Your task to perform on an android device: open sync settings in chrome Image 0: 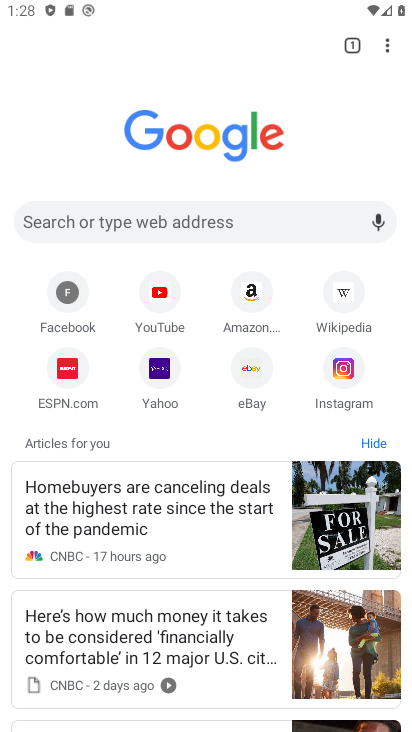
Step 0: press home button
Your task to perform on an android device: open sync settings in chrome Image 1: 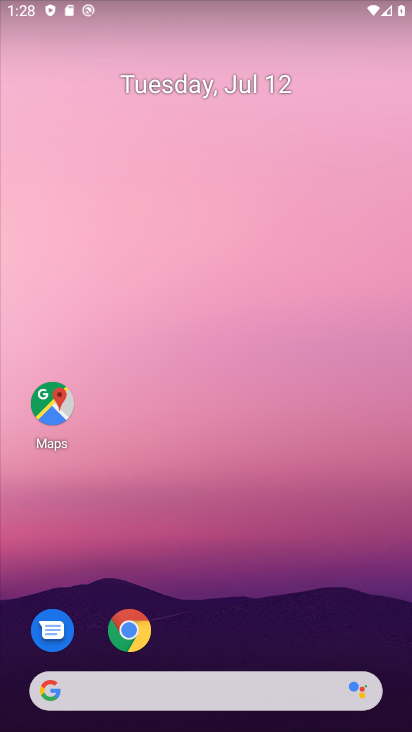
Step 1: drag from (389, 701) to (334, 80)
Your task to perform on an android device: open sync settings in chrome Image 2: 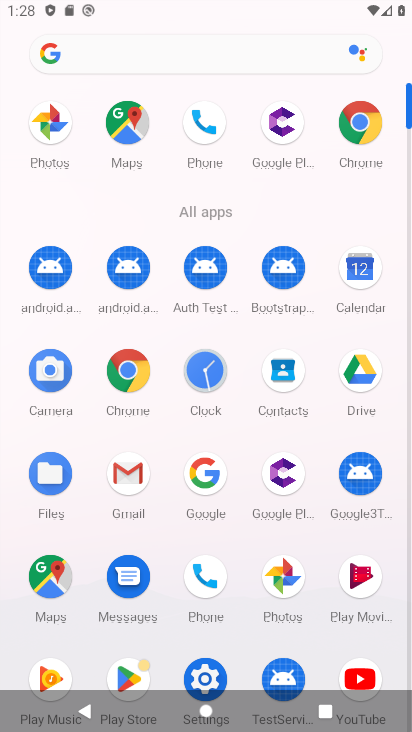
Step 2: click (358, 118)
Your task to perform on an android device: open sync settings in chrome Image 3: 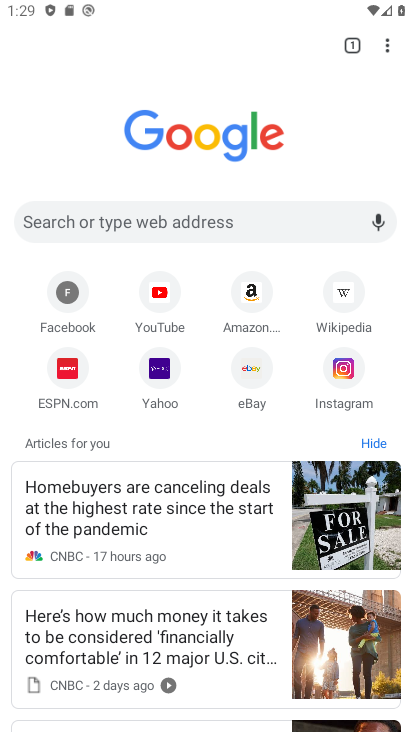
Step 3: click (386, 48)
Your task to perform on an android device: open sync settings in chrome Image 4: 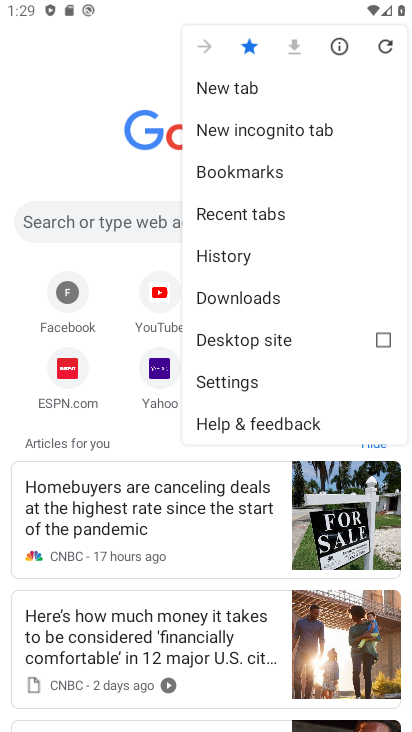
Step 4: click (244, 374)
Your task to perform on an android device: open sync settings in chrome Image 5: 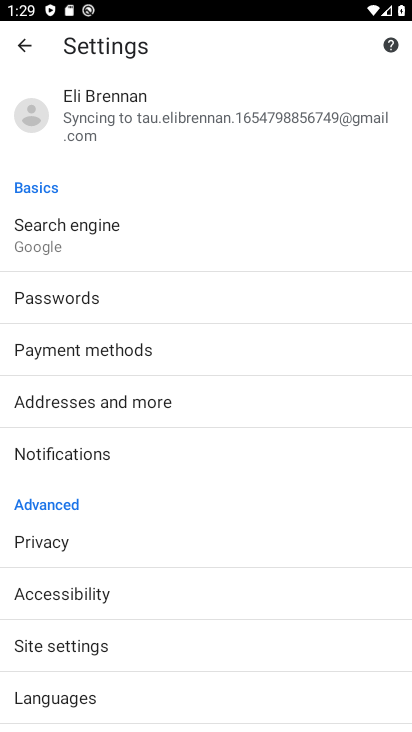
Step 5: drag from (178, 622) to (156, 227)
Your task to perform on an android device: open sync settings in chrome Image 6: 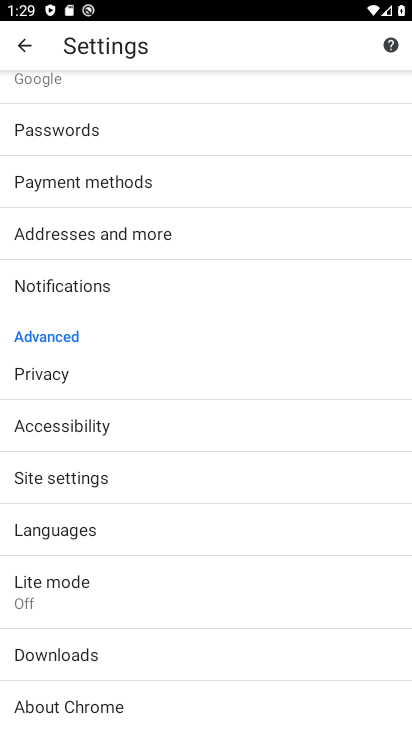
Step 6: click (57, 472)
Your task to perform on an android device: open sync settings in chrome Image 7: 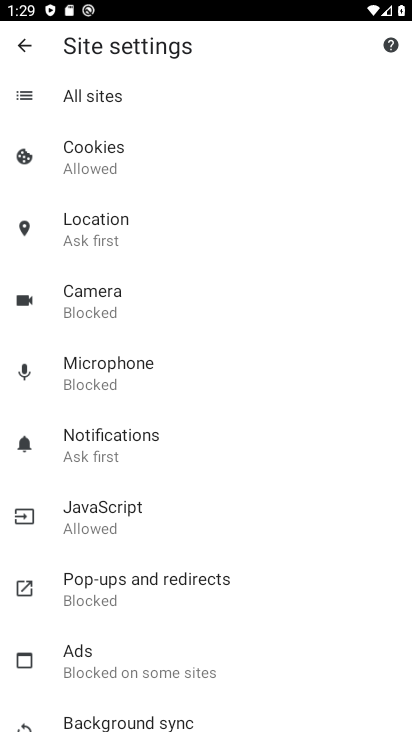
Step 7: drag from (282, 650) to (274, 207)
Your task to perform on an android device: open sync settings in chrome Image 8: 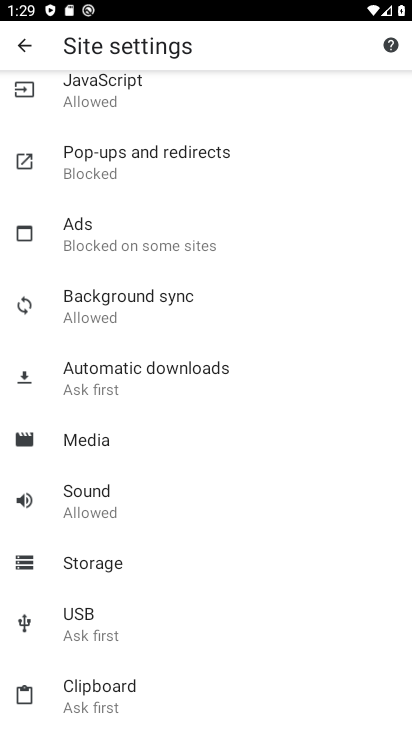
Step 8: click (110, 293)
Your task to perform on an android device: open sync settings in chrome Image 9: 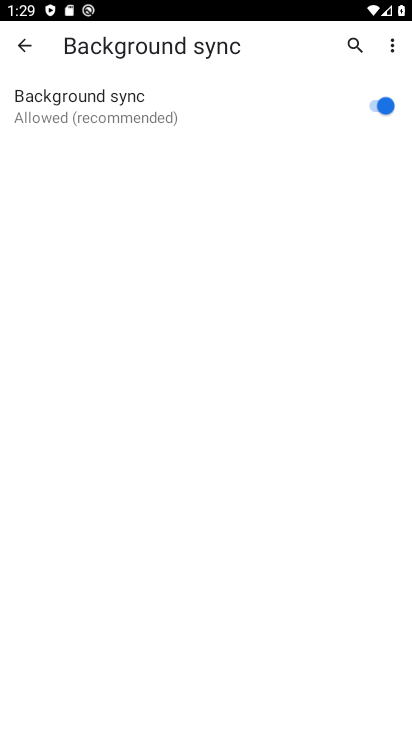
Step 9: task complete